Your task to perform on an android device: Show me popular videos on Youtube Image 0: 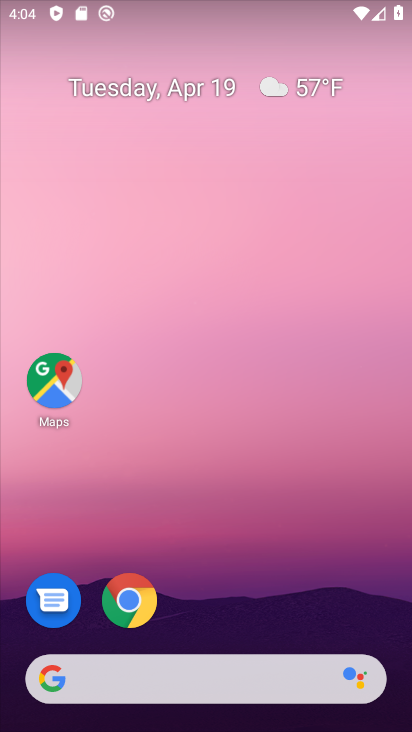
Step 0: drag from (357, 592) to (296, 78)
Your task to perform on an android device: Show me popular videos on Youtube Image 1: 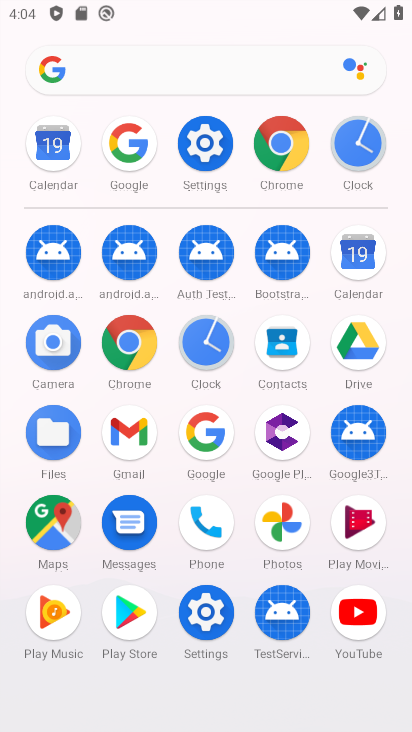
Step 1: click (360, 615)
Your task to perform on an android device: Show me popular videos on Youtube Image 2: 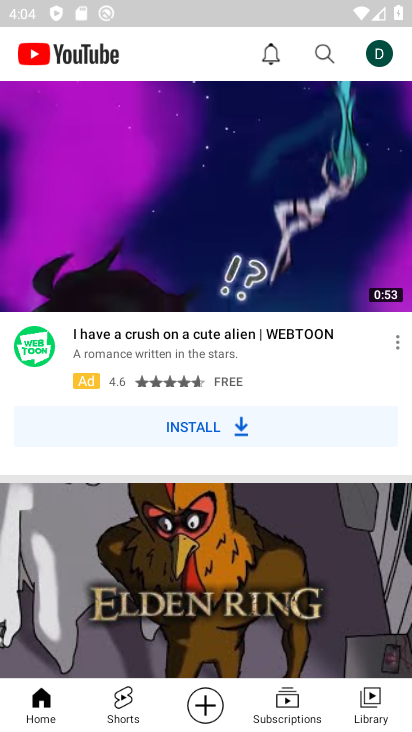
Step 2: click (296, 703)
Your task to perform on an android device: Show me popular videos on Youtube Image 3: 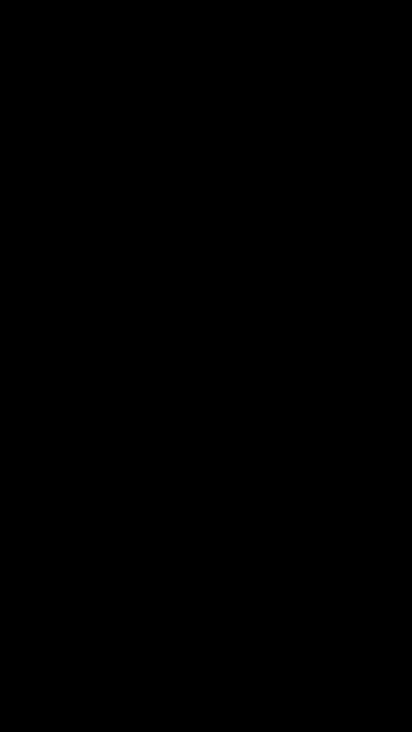
Step 3: task complete